Your task to perform on an android device: toggle notifications settings in the gmail app Image 0: 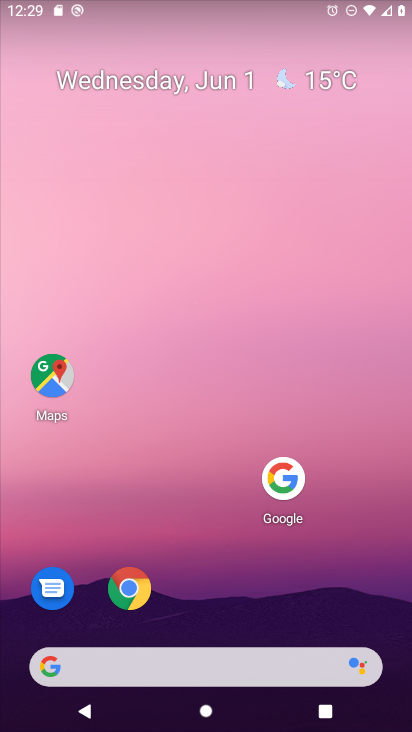
Step 0: press home button
Your task to perform on an android device: toggle notifications settings in the gmail app Image 1: 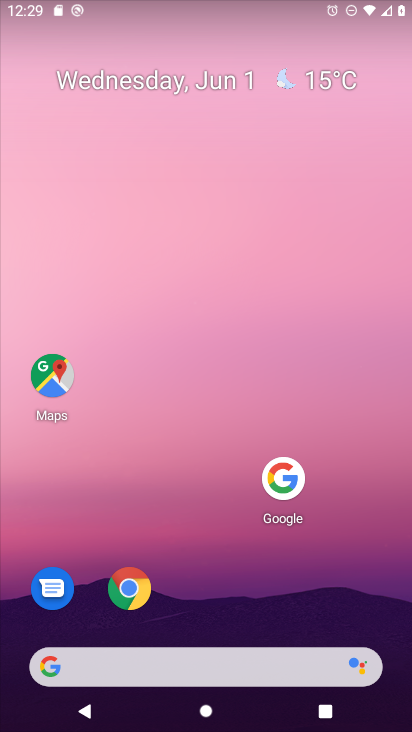
Step 1: drag from (191, 665) to (300, 200)
Your task to perform on an android device: toggle notifications settings in the gmail app Image 2: 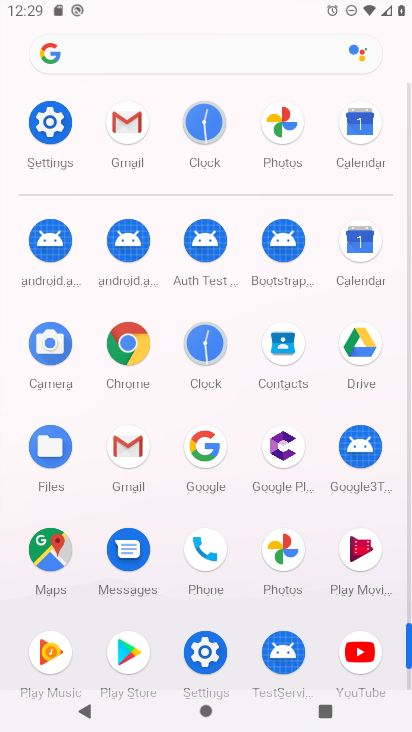
Step 2: click (128, 127)
Your task to perform on an android device: toggle notifications settings in the gmail app Image 3: 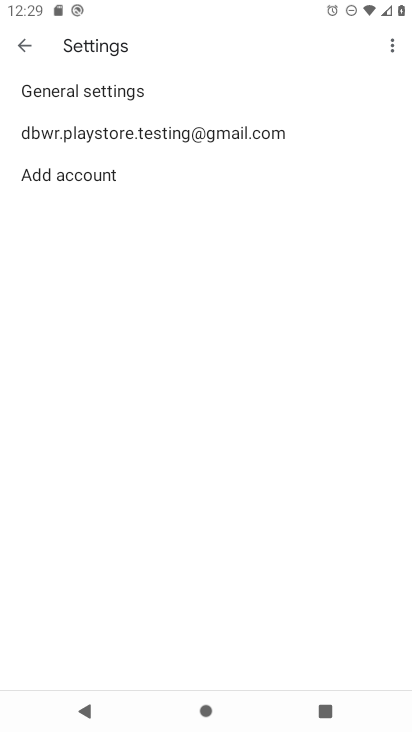
Step 3: click (113, 129)
Your task to perform on an android device: toggle notifications settings in the gmail app Image 4: 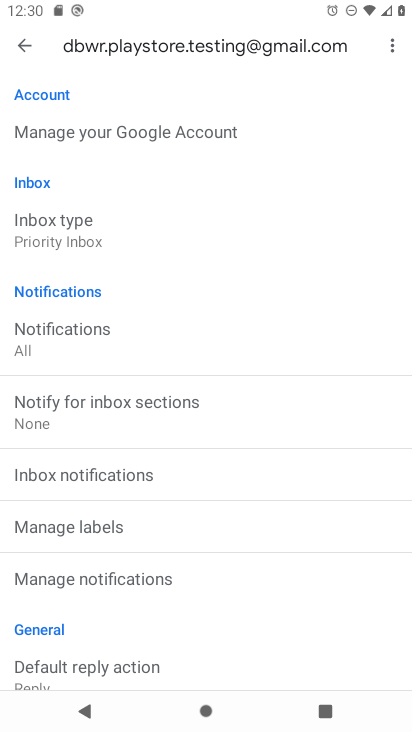
Step 4: click (75, 347)
Your task to perform on an android device: toggle notifications settings in the gmail app Image 5: 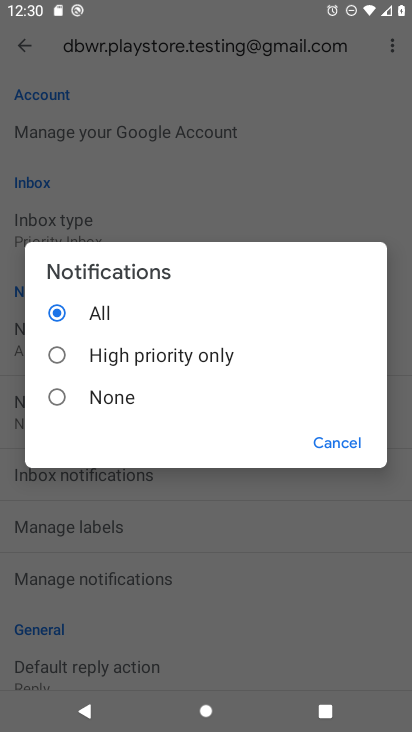
Step 5: click (53, 394)
Your task to perform on an android device: toggle notifications settings in the gmail app Image 6: 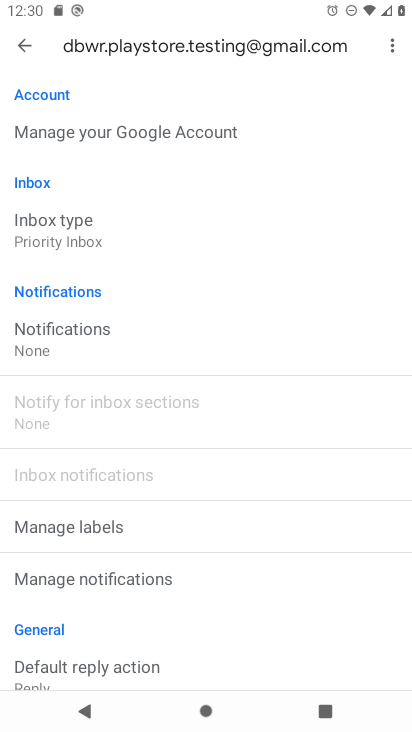
Step 6: task complete